Your task to perform on an android device: Open Google Chrome Image 0: 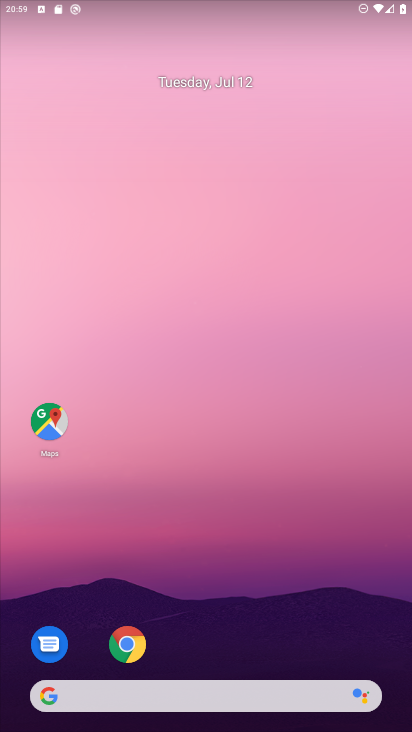
Step 0: click (127, 646)
Your task to perform on an android device: Open Google Chrome Image 1: 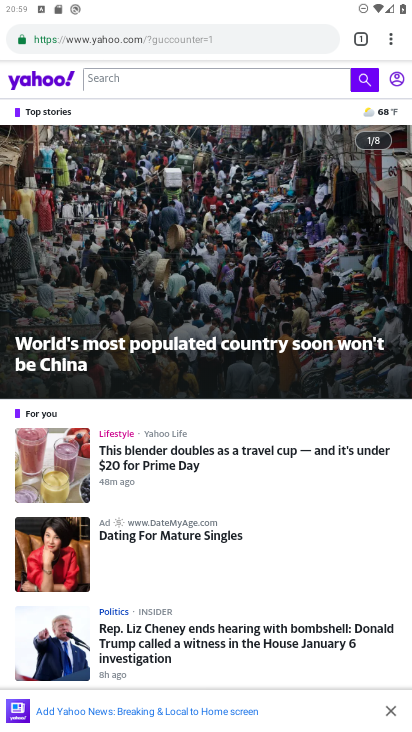
Step 1: click (224, 197)
Your task to perform on an android device: Open Google Chrome Image 2: 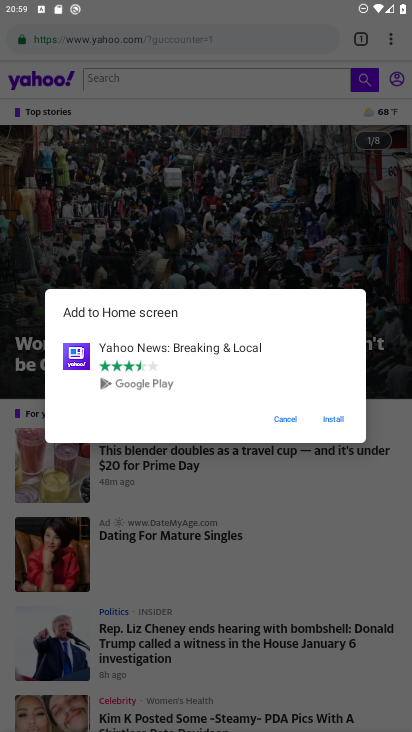
Step 2: task complete